Your task to perform on an android device: turn notification dots off Image 0: 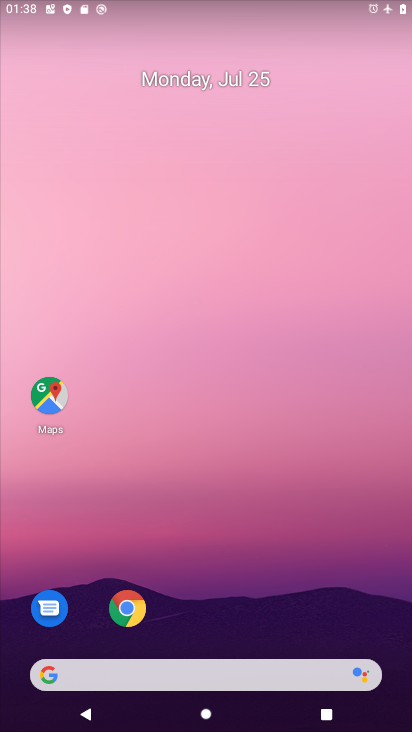
Step 0: drag from (217, 638) to (211, 21)
Your task to perform on an android device: turn notification dots off Image 1: 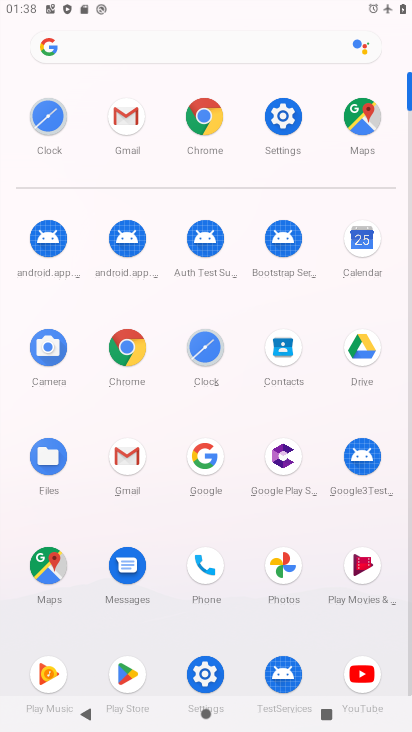
Step 1: click (285, 108)
Your task to perform on an android device: turn notification dots off Image 2: 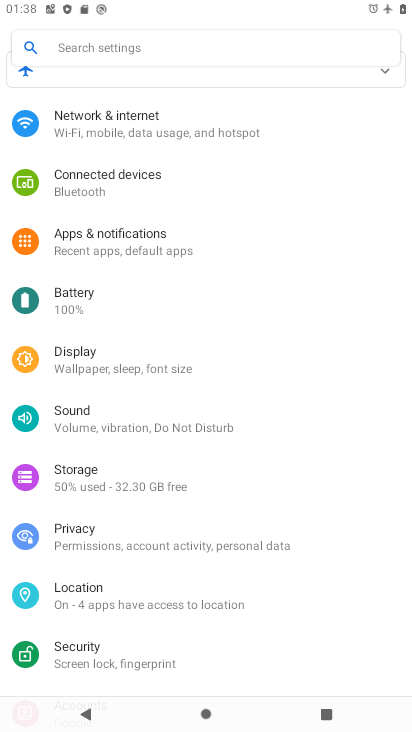
Step 2: click (96, 243)
Your task to perform on an android device: turn notification dots off Image 3: 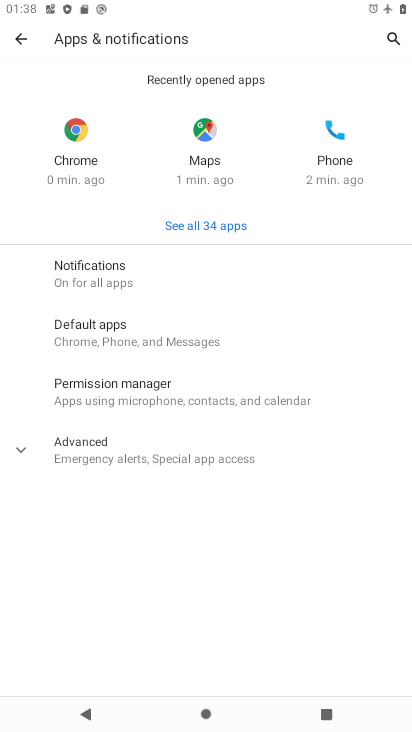
Step 3: click (147, 441)
Your task to perform on an android device: turn notification dots off Image 4: 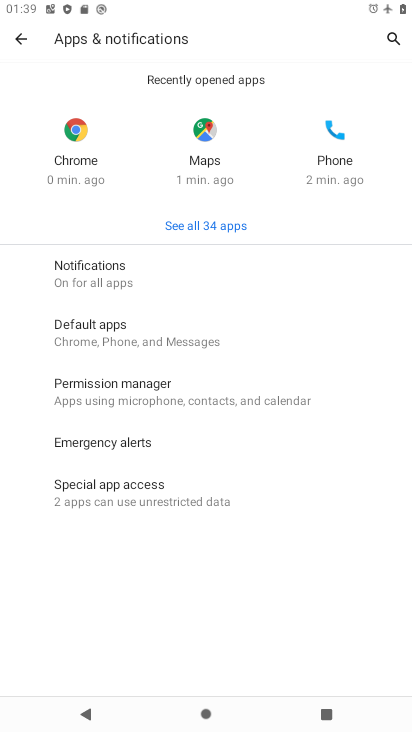
Step 4: click (102, 272)
Your task to perform on an android device: turn notification dots off Image 5: 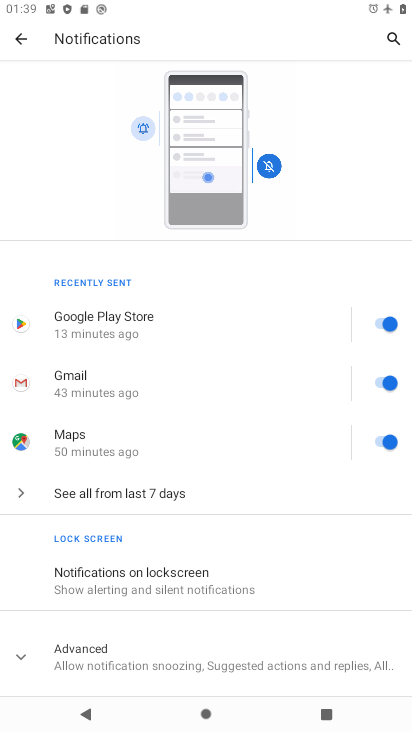
Step 5: click (228, 637)
Your task to perform on an android device: turn notification dots off Image 6: 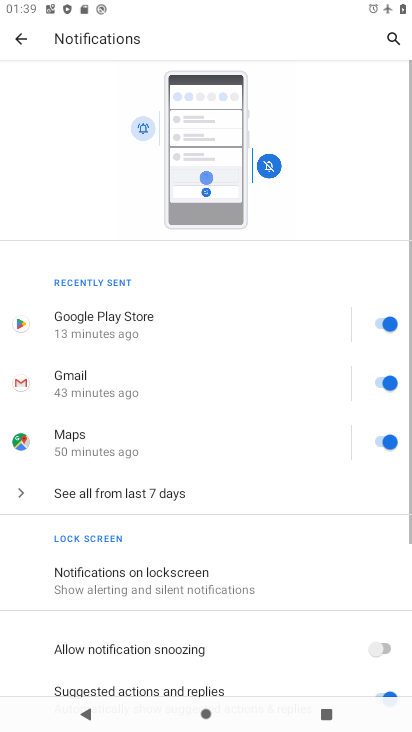
Step 6: task complete